Your task to perform on an android device: Turn off the flashlight Image 0: 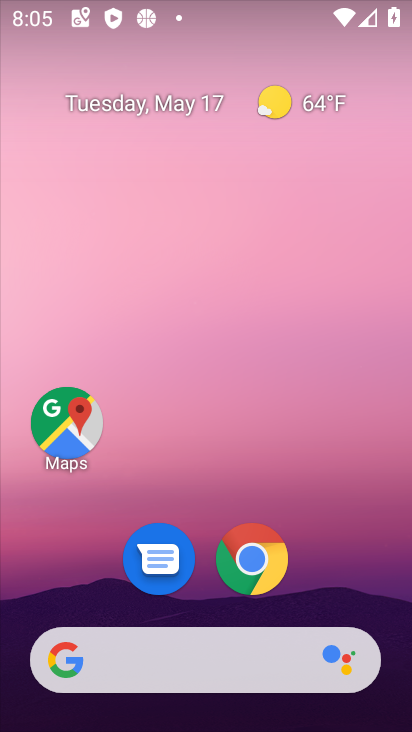
Step 0: drag from (218, 622) to (335, 440)
Your task to perform on an android device: Turn off the flashlight Image 1: 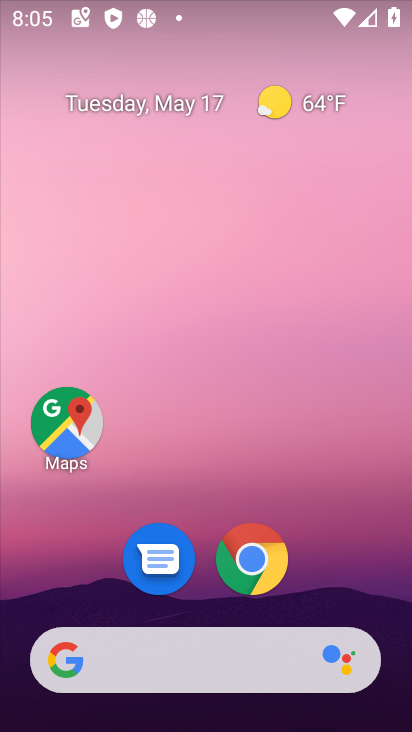
Step 1: click (348, 193)
Your task to perform on an android device: Turn off the flashlight Image 2: 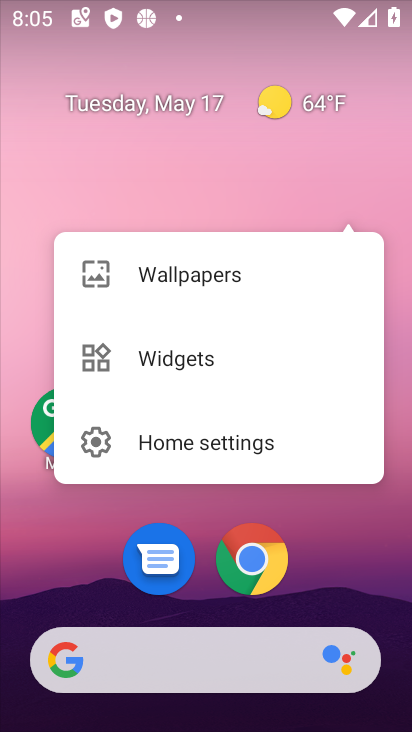
Step 2: drag from (228, 619) to (113, 8)
Your task to perform on an android device: Turn off the flashlight Image 3: 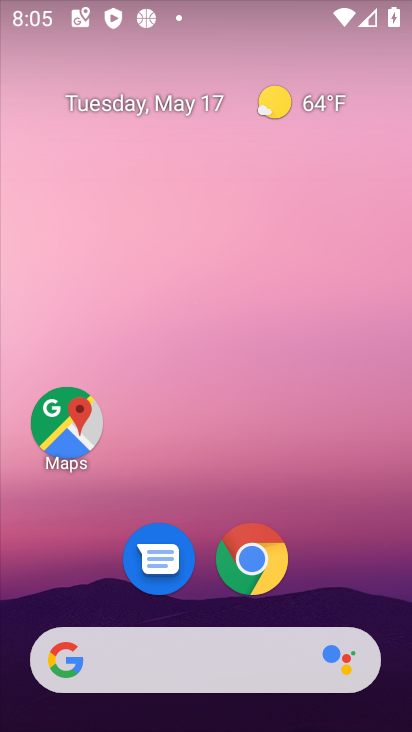
Step 3: drag from (202, 600) to (71, 7)
Your task to perform on an android device: Turn off the flashlight Image 4: 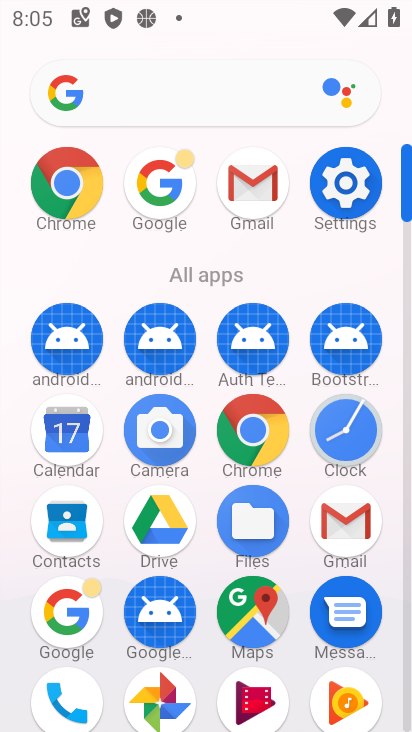
Step 4: click (336, 183)
Your task to perform on an android device: Turn off the flashlight Image 5: 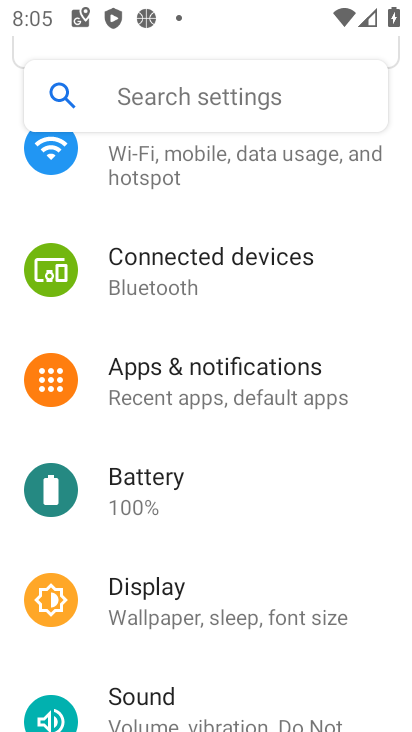
Step 5: task complete